Your task to perform on an android device: open app "Adobe Acrobat Reader" Image 0: 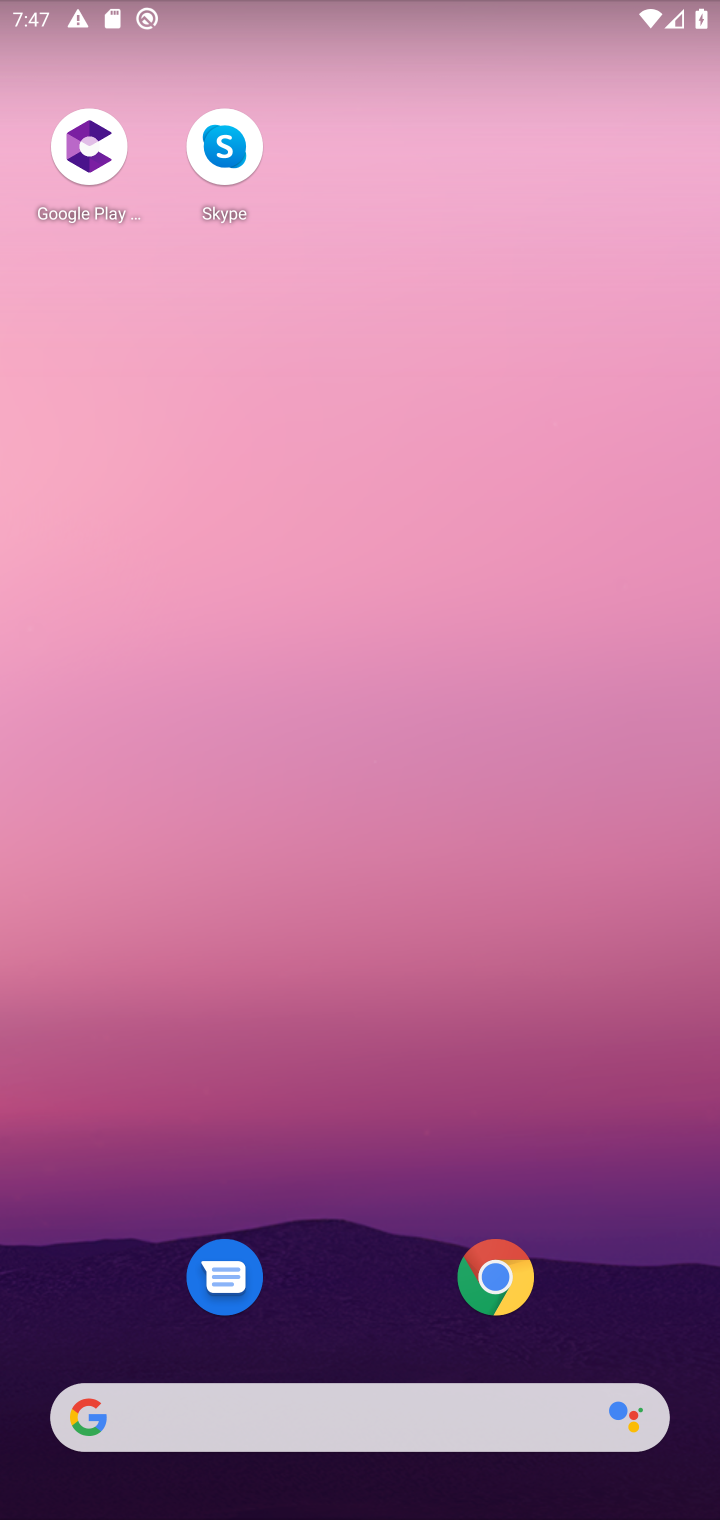
Step 0: drag from (507, 1341) to (527, 156)
Your task to perform on an android device: open app "Adobe Acrobat Reader" Image 1: 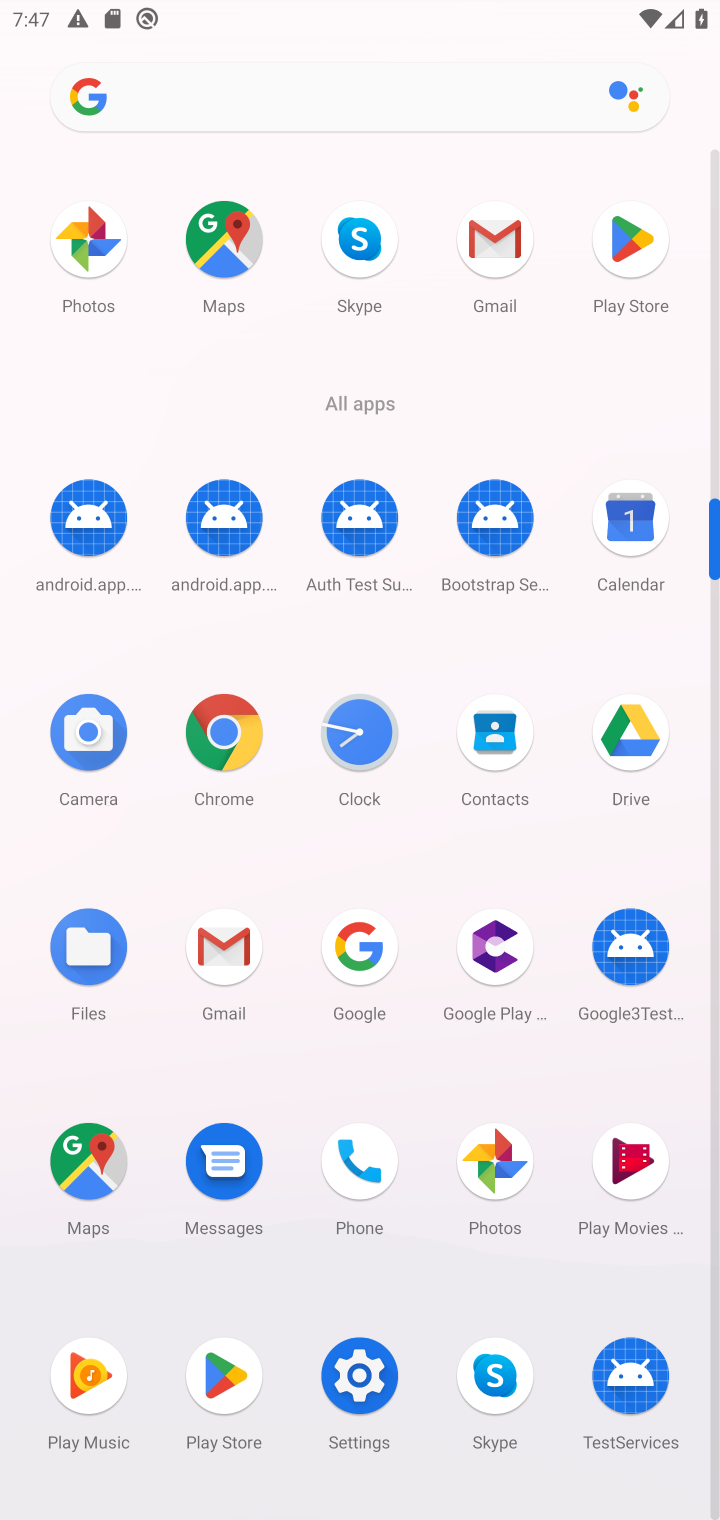
Step 1: click (222, 1365)
Your task to perform on an android device: open app "Adobe Acrobat Reader" Image 2: 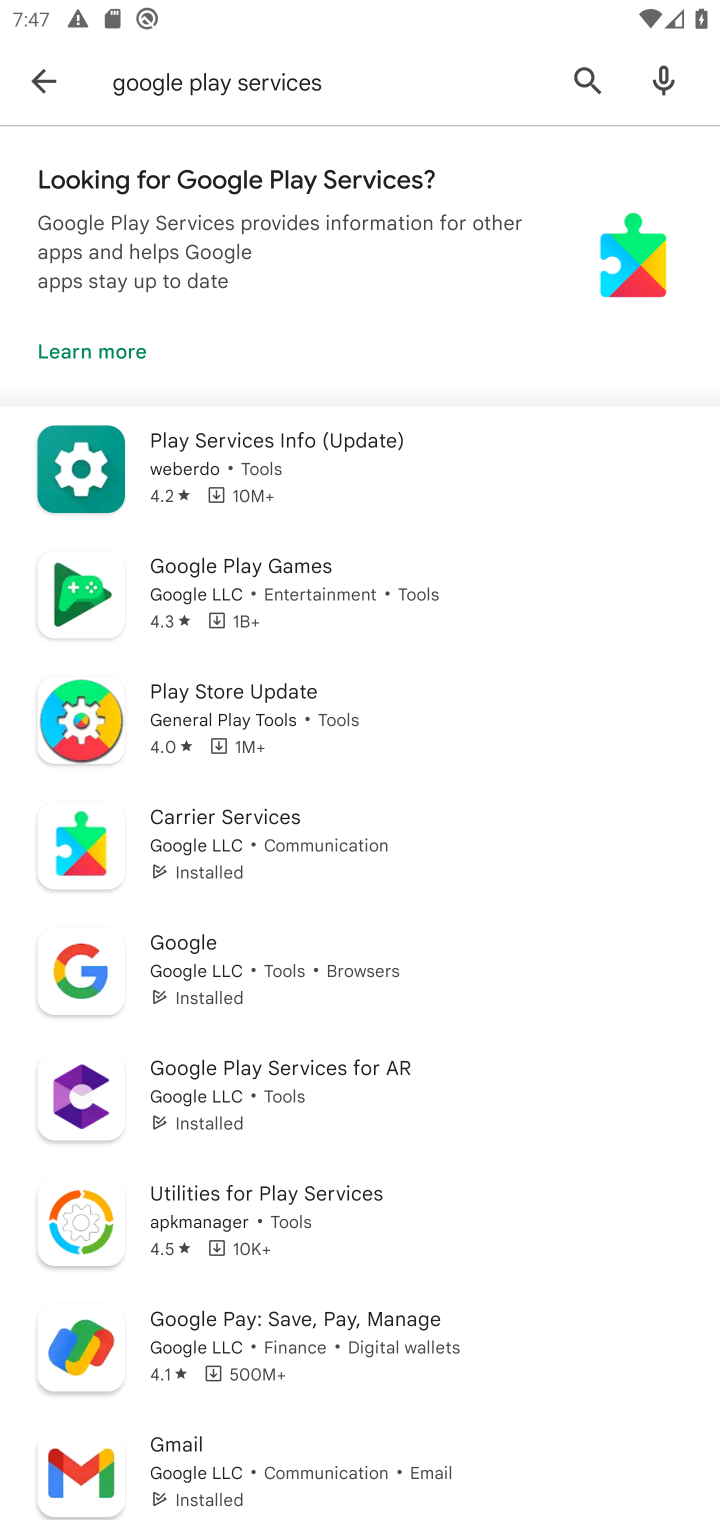
Step 2: click (443, 88)
Your task to perform on an android device: open app "Adobe Acrobat Reader" Image 3: 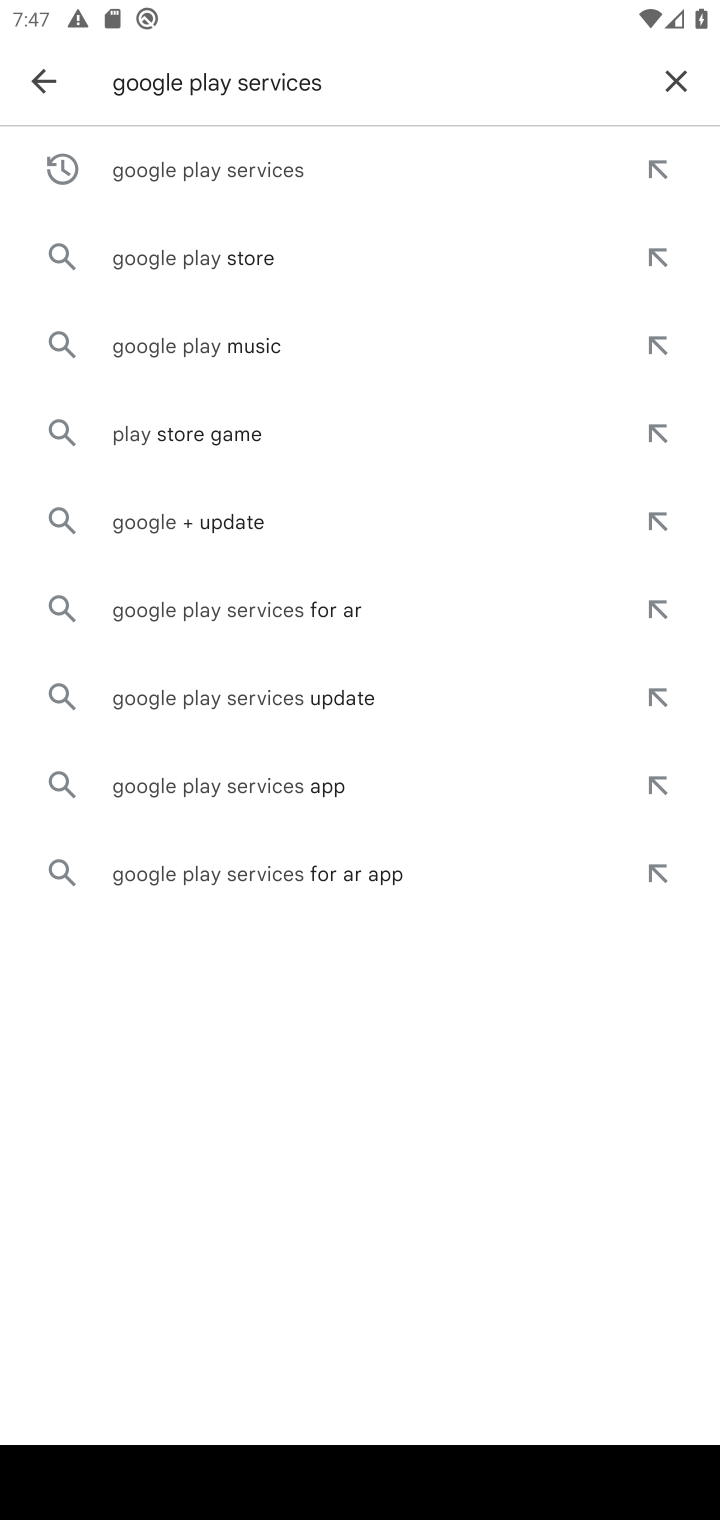
Step 3: click (671, 71)
Your task to perform on an android device: open app "Adobe Acrobat Reader" Image 4: 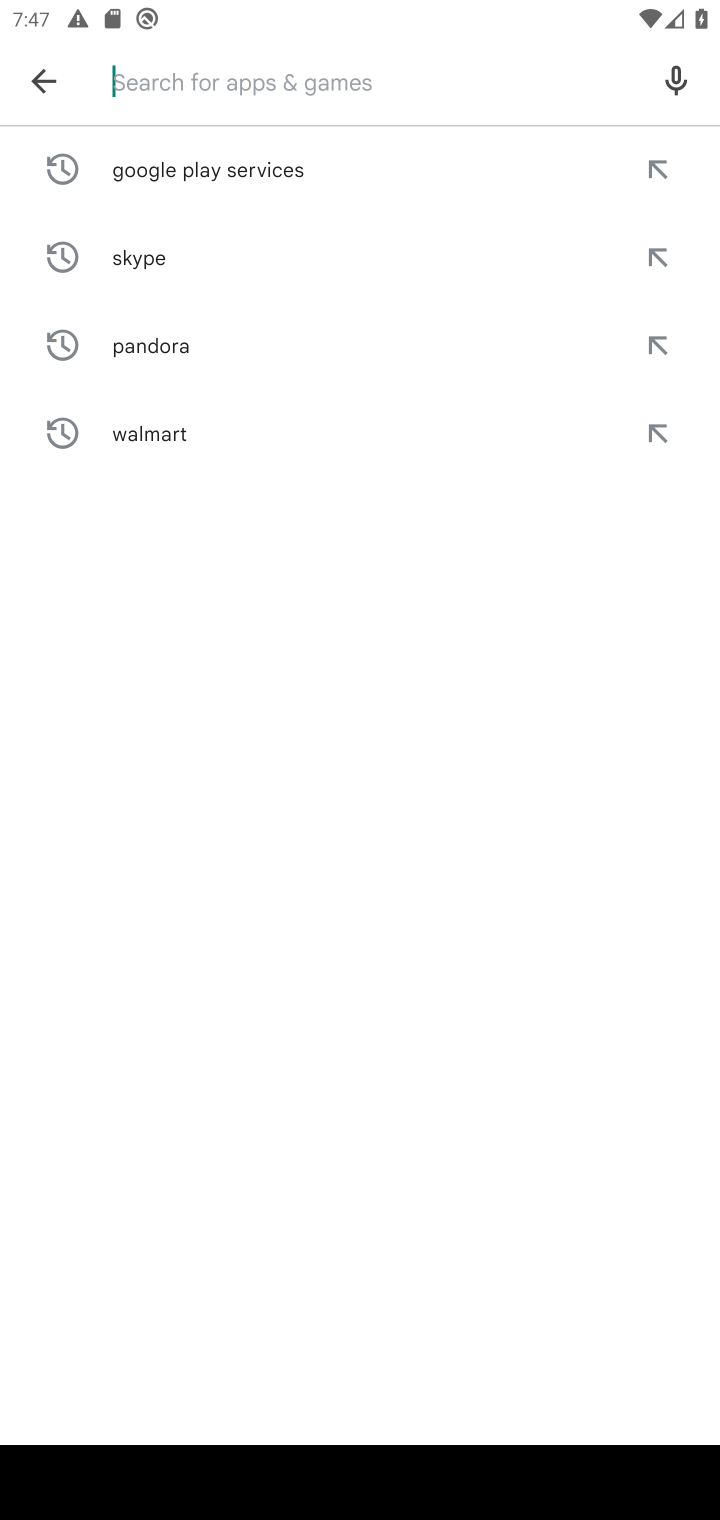
Step 4: click (451, 84)
Your task to perform on an android device: open app "Adobe Acrobat Reader" Image 5: 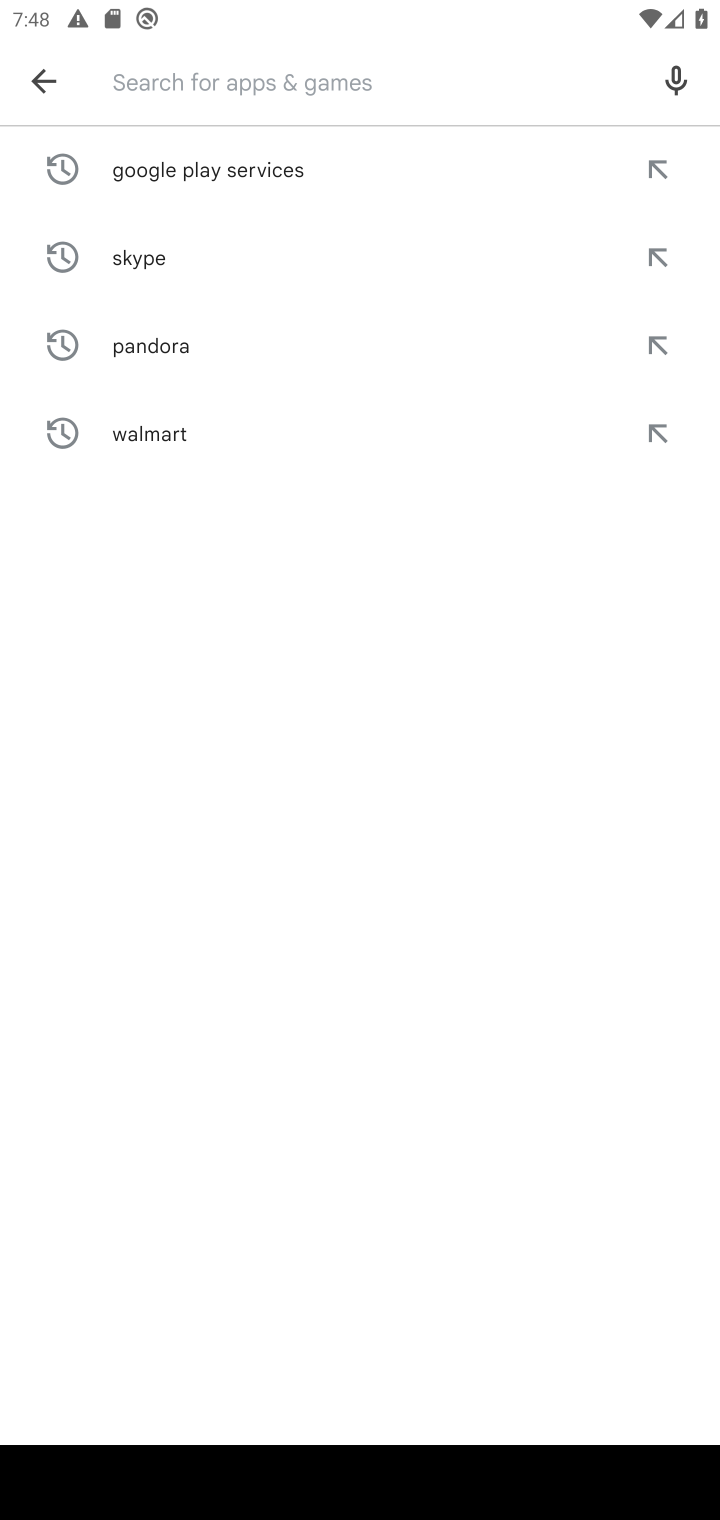
Step 5: type "adobe acrobat reader"
Your task to perform on an android device: open app "Adobe Acrobat Reader" Image 6: 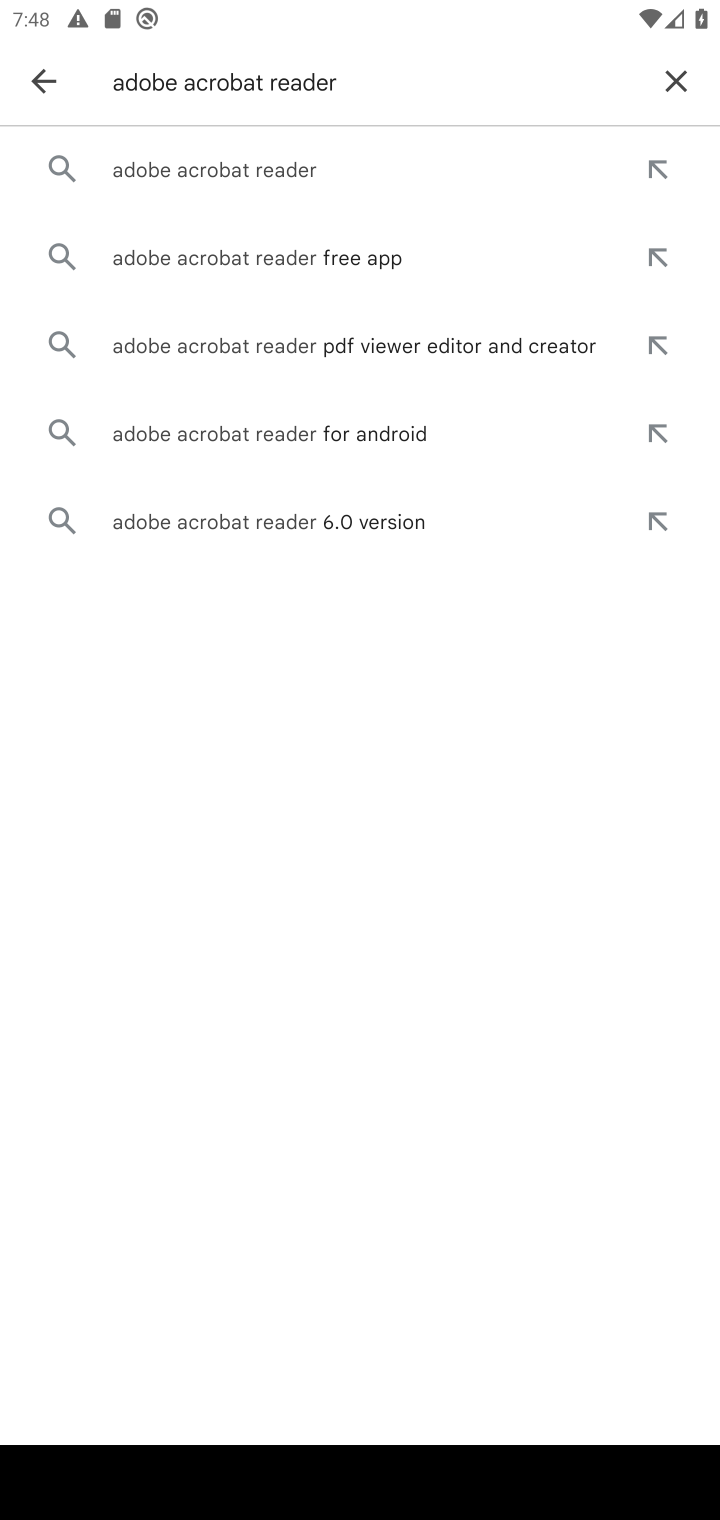
Step 6: click (272, 178)
Your task to perform on an android device: open app "Adobe Acrobat Reader" Image 7: 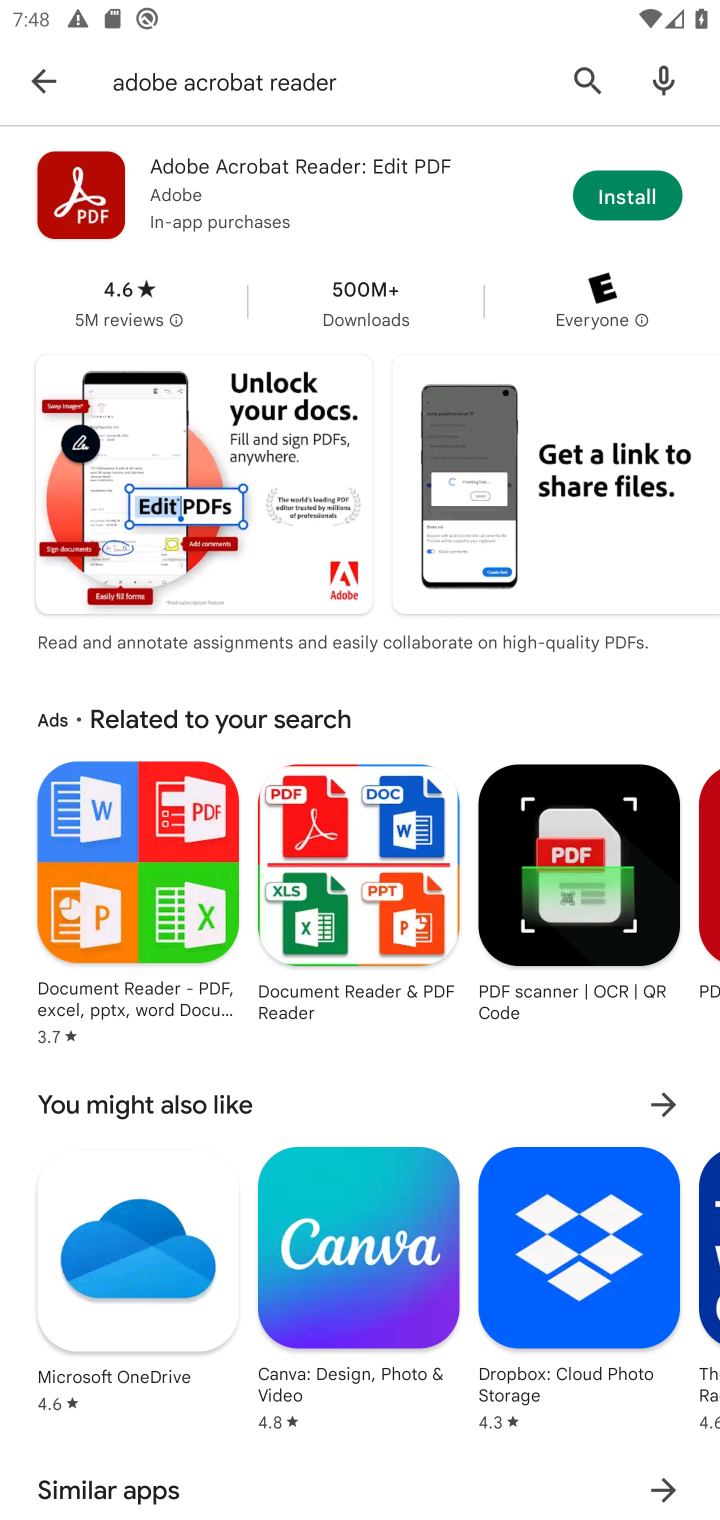
Step 7: task complete